Your task to perform on an android device: turn off sleep mode Image 0: 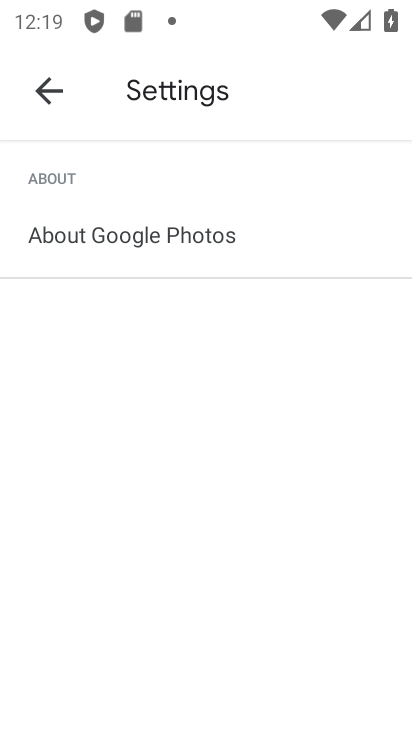
Step 0: press home button
Your task to perform on an android device: turn off sleep mode Image 1: 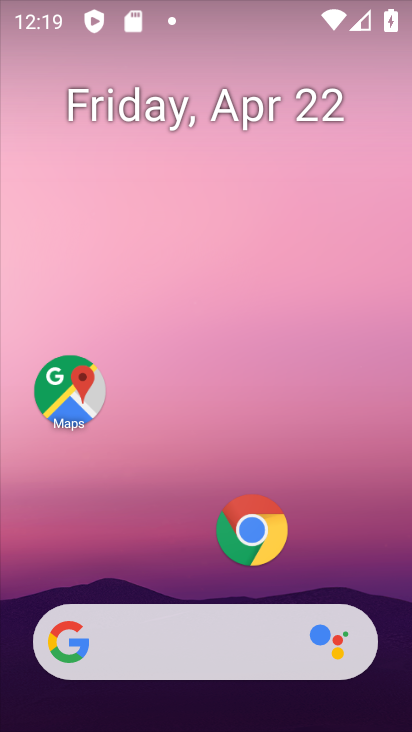
Step 1: drag from (204, 721) to (205, 147)
Your task to perform on an android device: turn off sleep mode Image 2: 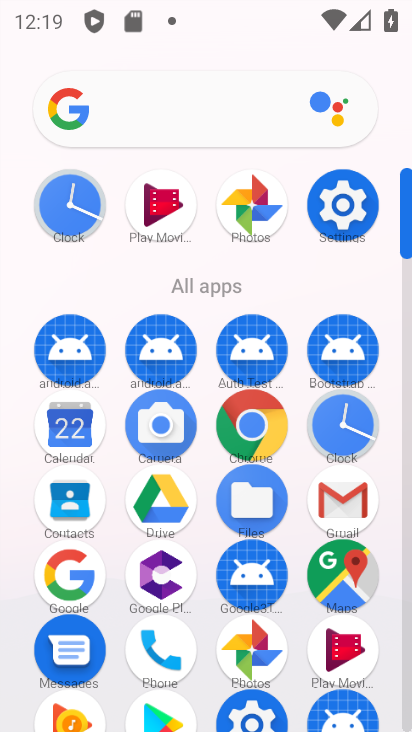
Step 2: click (347, 203)
Your task to perform on an android device: turn off sleep mode Image 3: 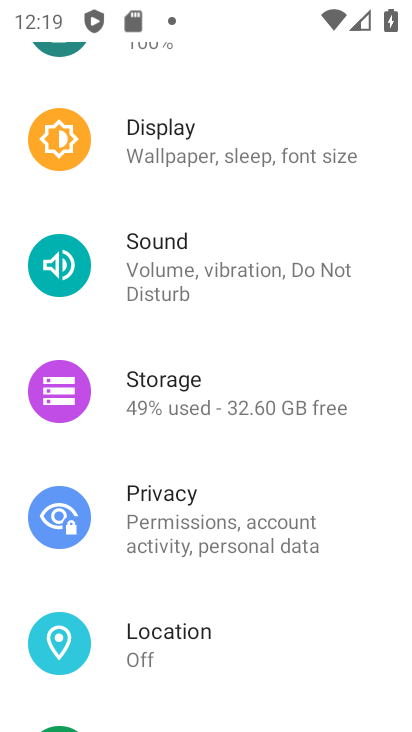
Step 3: click (222, 149)
Your task to perform on an android device: turn off sleep mode Image 4: 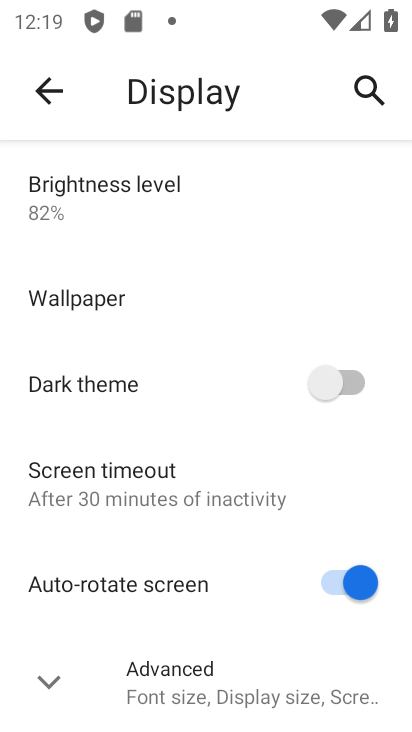
Step 4: task complete